Your task to perform on an android device: turn off priority inbox in the gmail app Image 0: 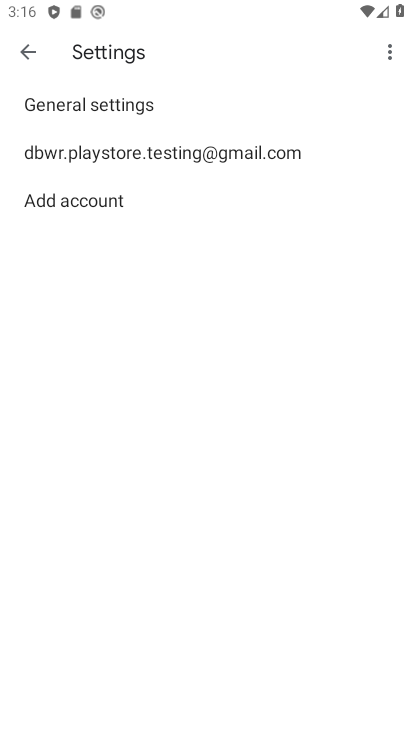
Step 0: drag from (258, 524) to (231, 210)
Your task to perform on an android device: turn off priority inbox in the gmail app Image 1: 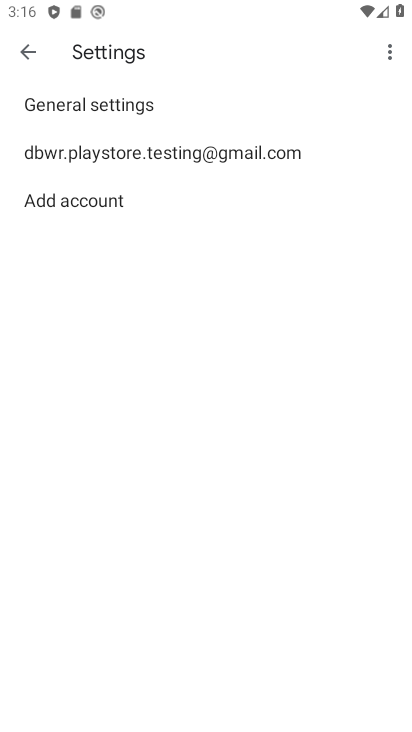
Step 1: click (207, 150)
Your task to perform on an android device: turn off priority inbox in the gmail app Image 2: 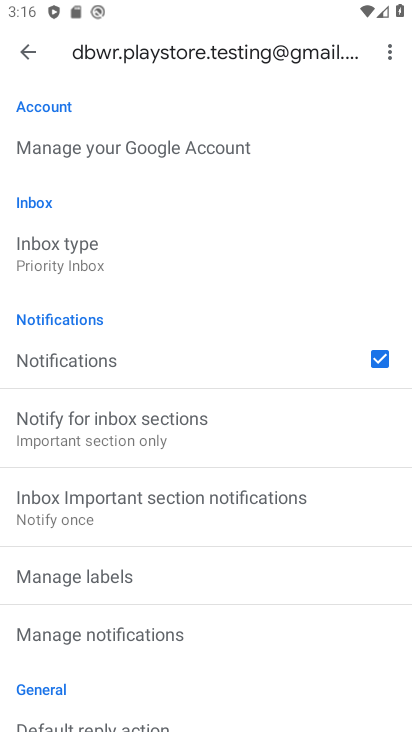
Step 2: click (124, 245)
Your task to perform on an android device: turn off priority inbox in the gmail app Image 3: 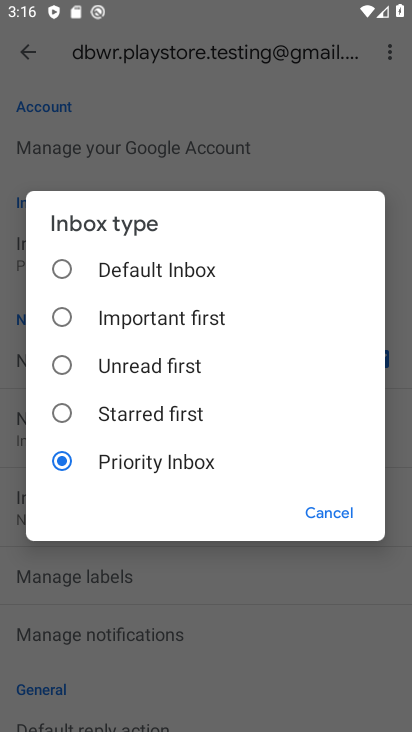
Step 3: click (152, 263)
Your task to perform on an android device: turn off priority inbox in the gmail app Image 4: 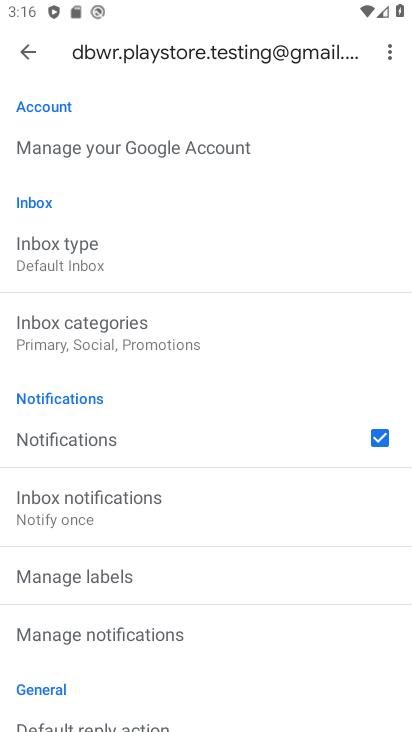
Step 4: task complete